Your task to perform on an android device: Turn off the flashlight Image 0: 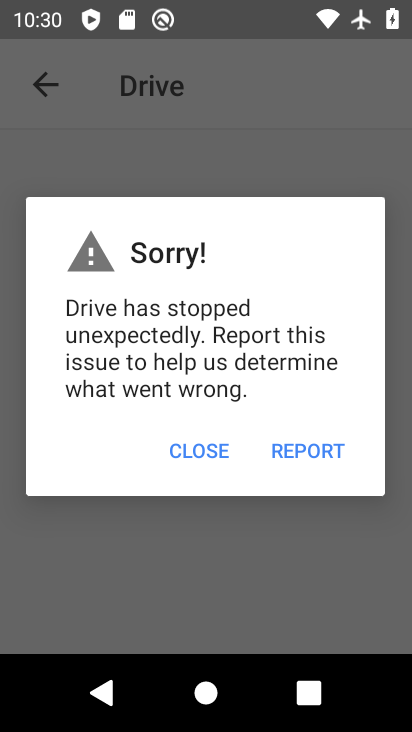
Step 0: press home button
Your task to perform on an android device: Turn off the flashlight Image 1: 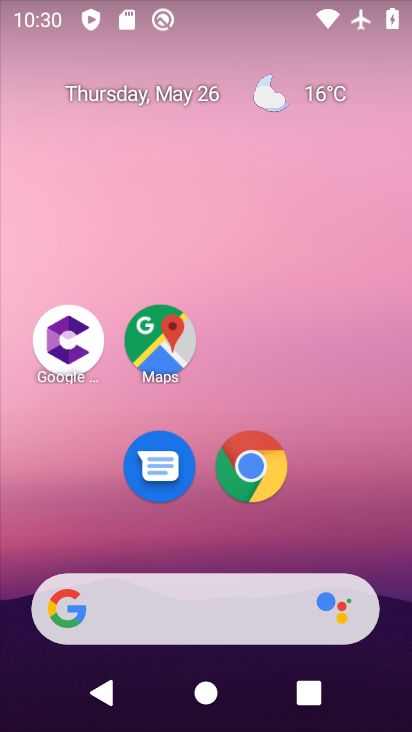
Step 1: drag from (375, 507) to (214, 2)
Your task to perform on an android device: Turn off the flashlight Image 2: 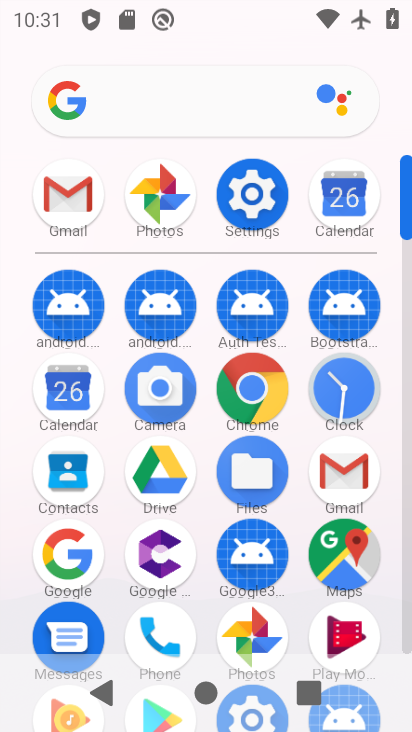
Step 2: click (250, 198)
Your task to perform on an android device: Turn off the flashlight Image 3: 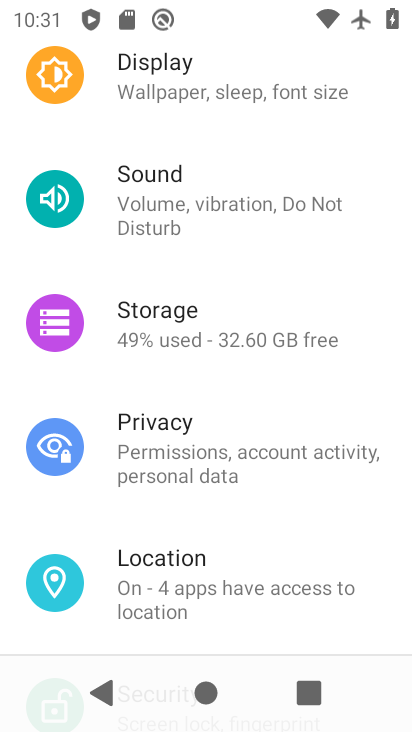
Step 3: drag from (175, 140) to (261, 524)
Your task to perform on an android device: Turn off the flashlight Image 4: 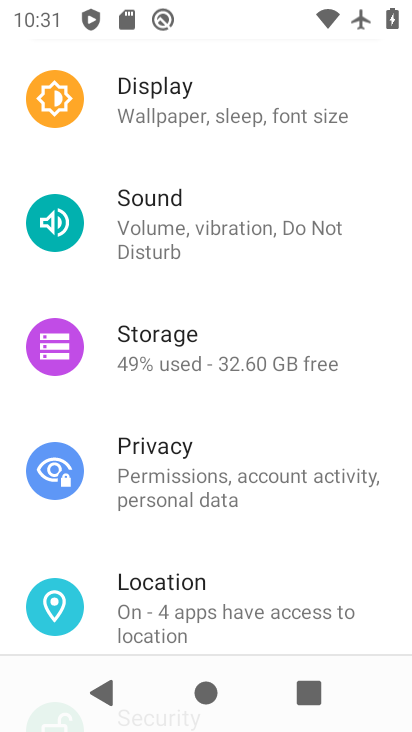
Step 4: click (176, 215)
Your task to perform on an android device: Turn off the flashlight Image 5: 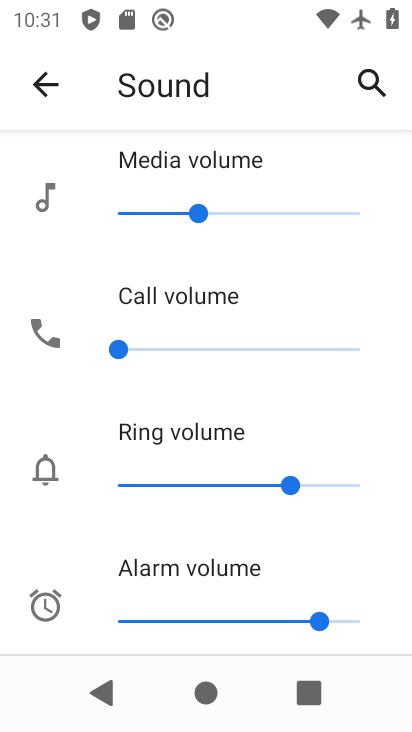
Step 5: task complete